Your task to perform on an android device: Open calendar and show me the fourth week of next month Image 0: 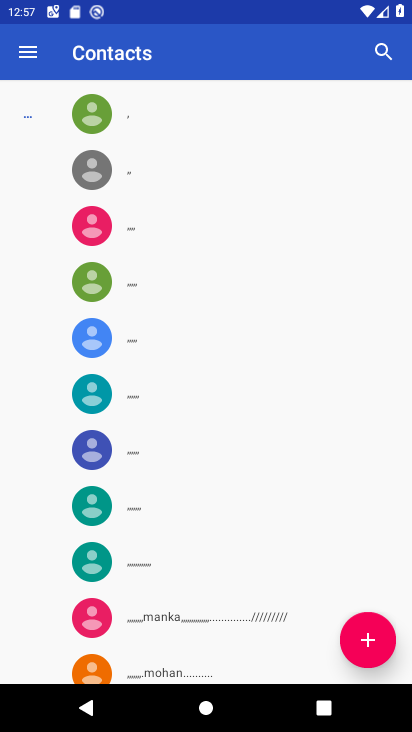
Step 0: press home button
Your task to perform on an android device: Open calendar and show me the fourth week of next month Image 1: 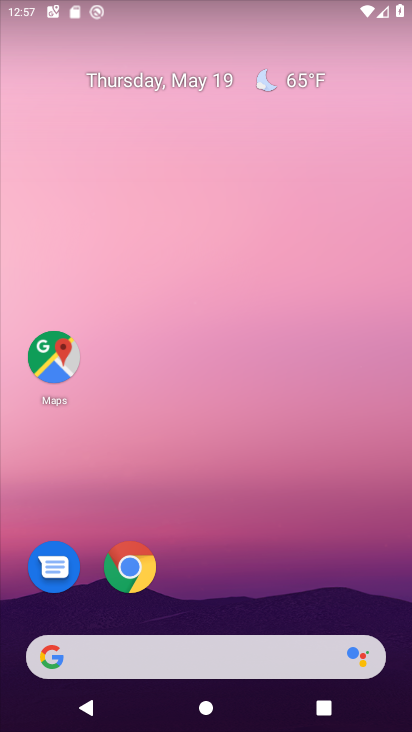
Step 1: click (179, 79)
Your task to perform on an android device: Open calendar and show me the fourth week of next month Image 2: 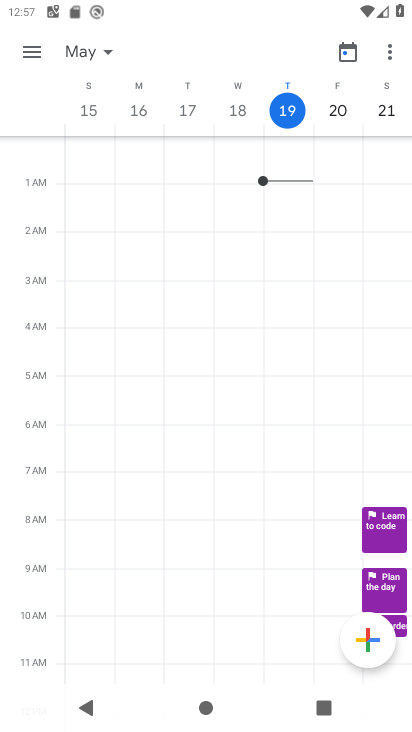
Step 2: click (106, 48)
Your task to perform on an android device: Open calendar and show me the fourth week of next month Image 3: 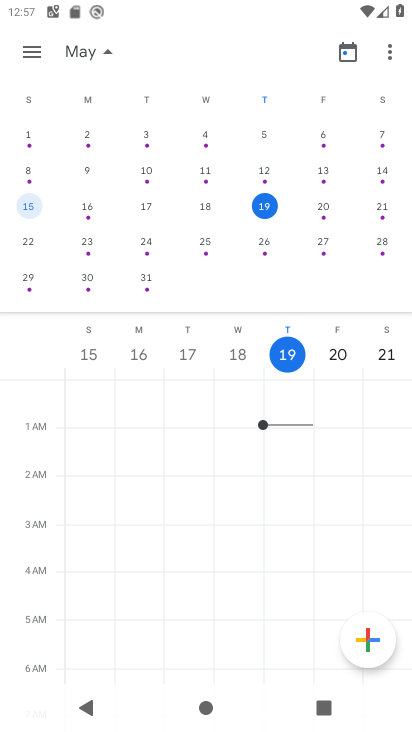
Step 3: drag from (364, 286) to (47, 278)
Your task to perform on an android device: Open calendar and show me the fourth week of next month Image 4: 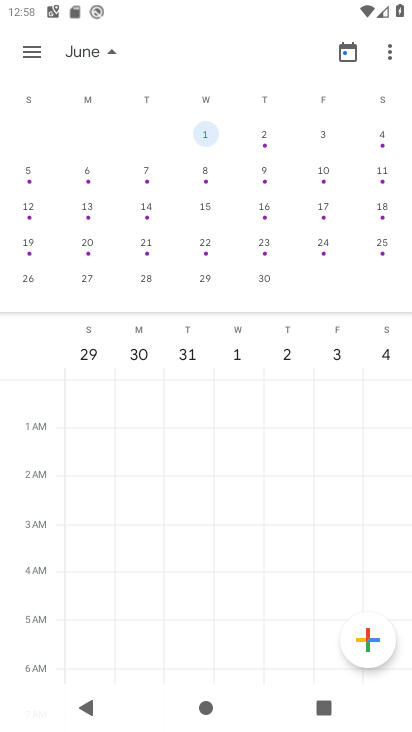
Step 4: click (201, 238)
Your task to perform on an android device: Open calendar and show me the fourth week of next month Image 5: 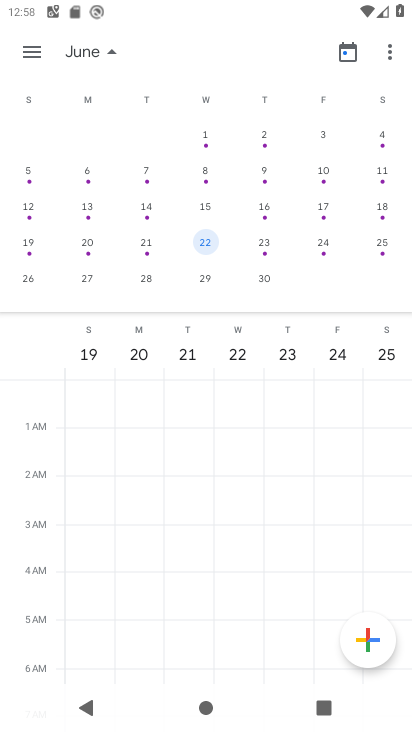
Step 5: task complete